Your task to perform on an android device: allow cookies in the chrome app Image 0: 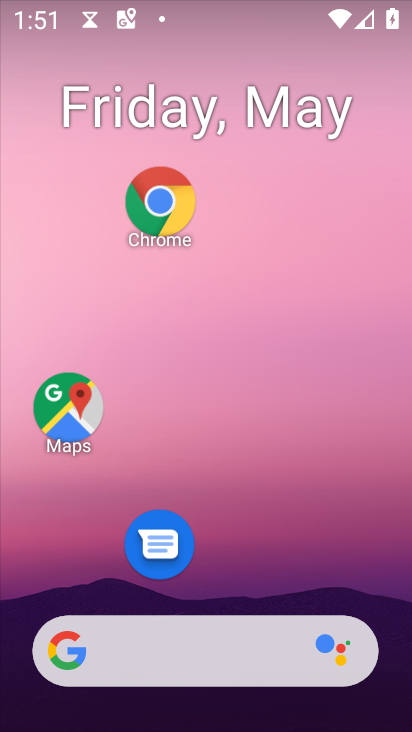
Step 0: drag from (244, 512) to (289, 188)
Your task to perform on an android device: allow cookies in the chrome app Image 1: 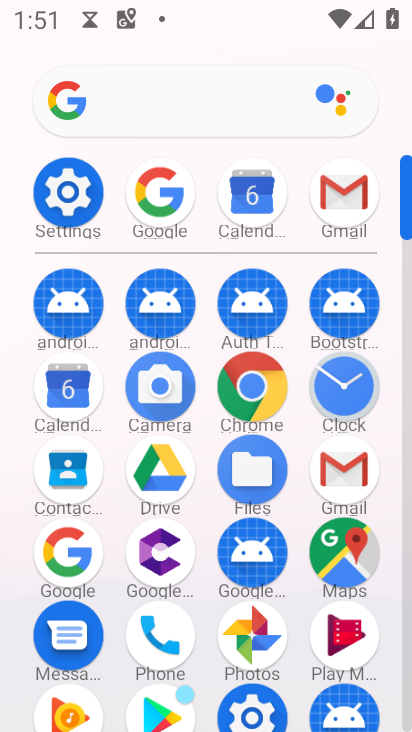
Step 1: click (255, 404)
Your task to perform on an android device: allow cookies in the chrome app Image 2: 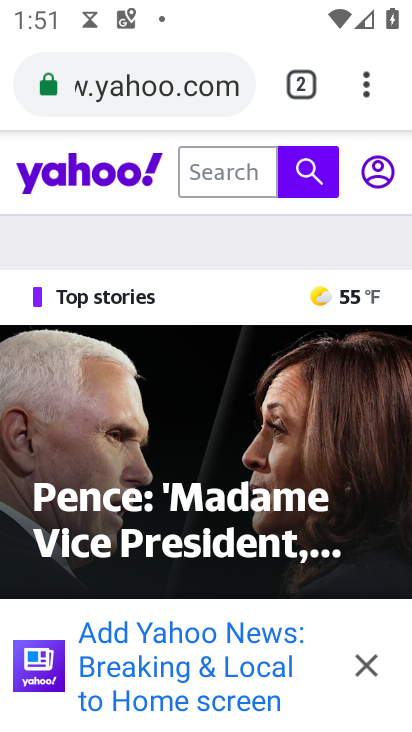
Step 2: click (365, 84)
Your task to perform on an android device: allow cookies in the chrome app Image 3: 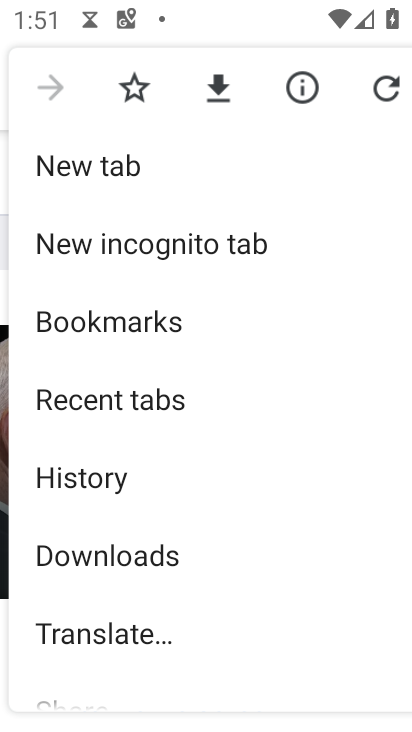
Step 3: drag from (202, 471) to (278, 214)
Your task to perform on an android device: allow cookies in the chrome app Image 4: 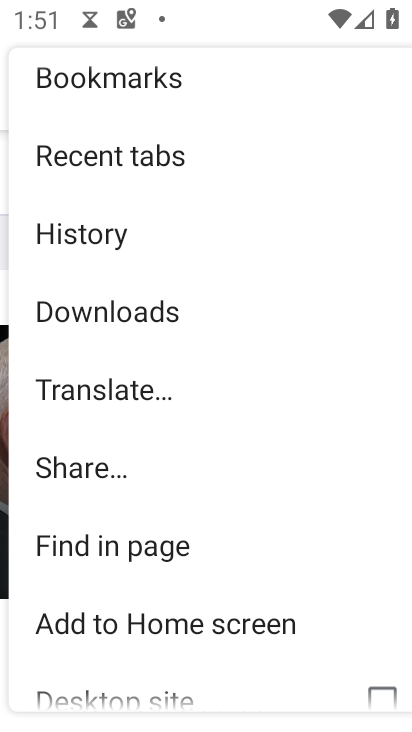
Step 4: drag from (202, 476) to (252, 280)
Your task to perform on an android device: allow cookies in the chrome app Image 5: 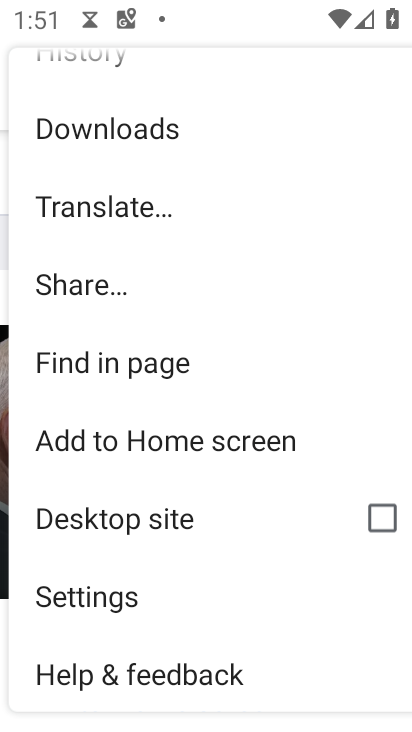
Step 5: click (141, 592)
Your task to perform on an android device: allow cookies in the chrome app Image 6: 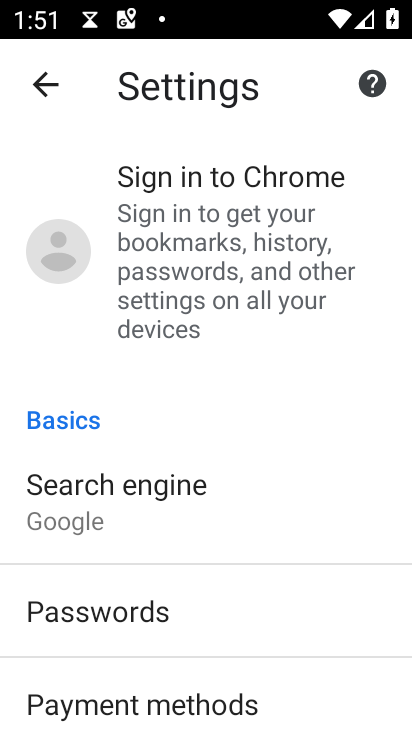
Step 6: drag from (155, 646) to (218, 411)
Your task to perform on an android device: allow cookies in the chrome app Image 7: 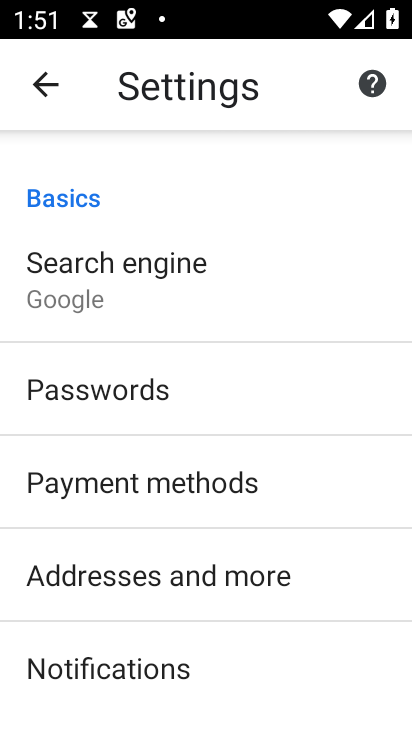
Step 7: drag from (159, 593) to (232, 328)
Your task to perform on an android device: allow cookies in the chrome app Image 8: 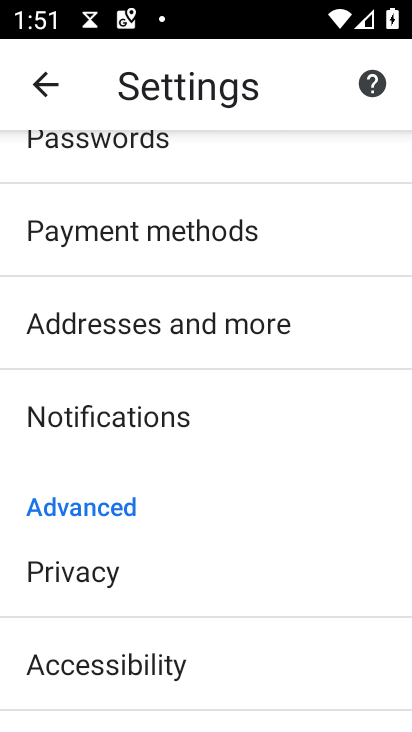
Step 8: drag from (217, 606) to (239, 386)
Your task to perform on an android device: allow cookies in the chrome app Image 9: 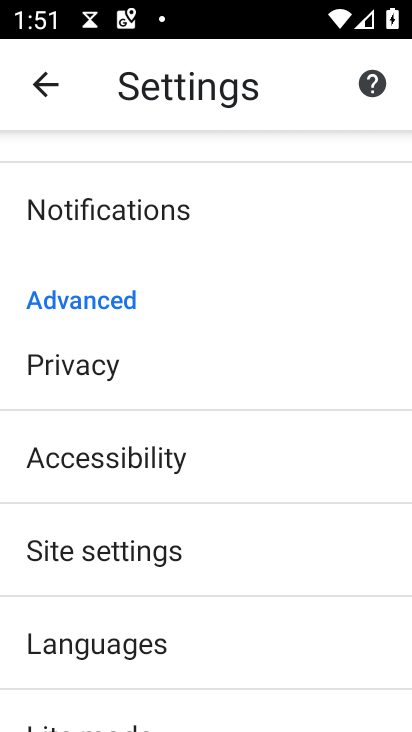
Step 9: click (178, 553)
Your task to perform on an android device: allow cookies in the chrome app Image 10: 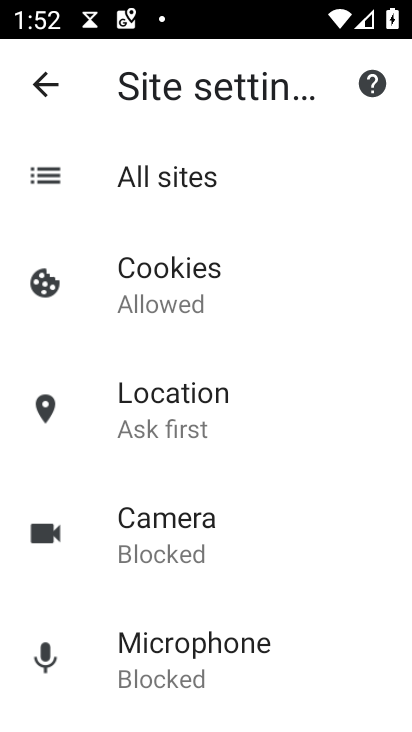
Step 10: click (206, 264)
Your task to perform on an android device: allow cookies in the chrome app Image 11: 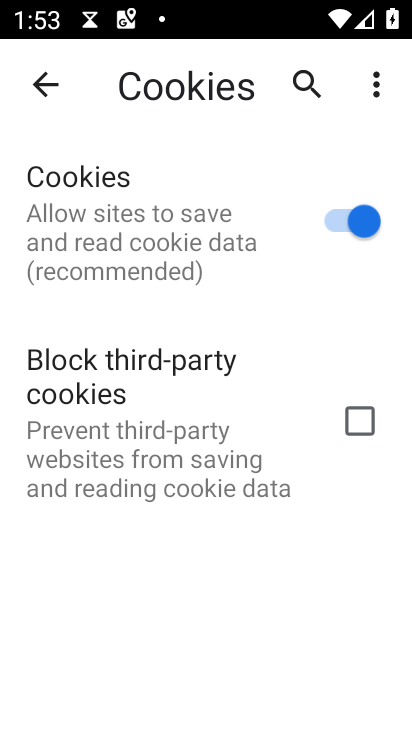
Step 11: task complete